Your task to perform on an android device: Go to location settings Image 0: 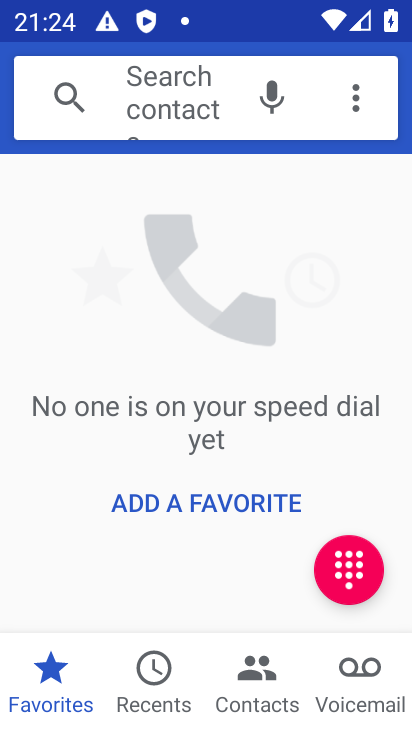
Step 0: drag from (206, 575) to (253, 233)
Your task to perform on an android device: Go to location settings Image 1: 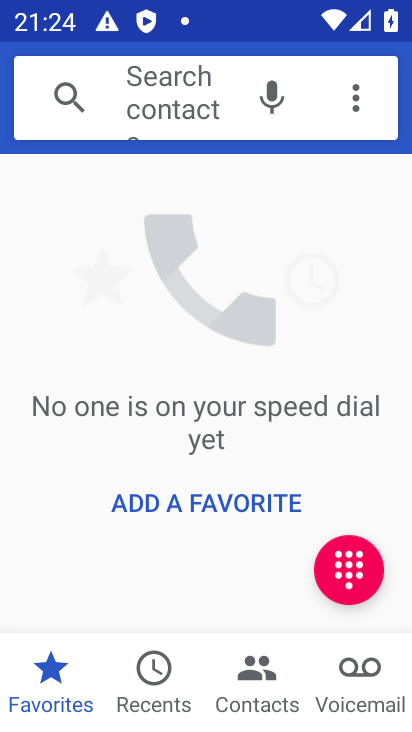
Step 1: press home button
Your task to perform on an android device: Go to location settings Image 2: 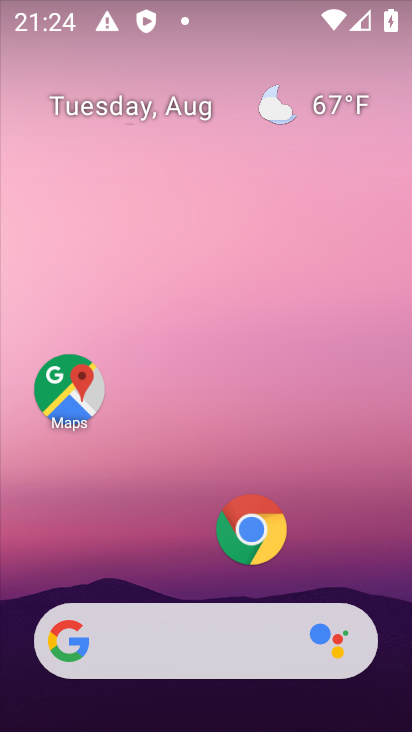
Step 2: drag from (189, 583) to (125, 16)
Your task to perform on an android device: Go to location settings Image 3: 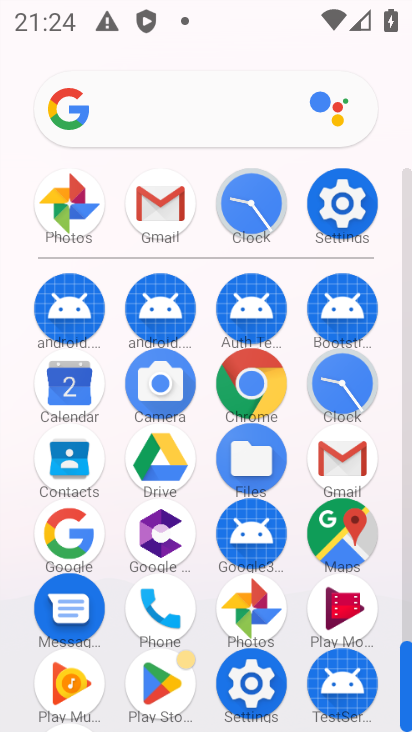
Step 3: click (333, 199)
Your task to perform on an android device: Go to location settings Image 4: 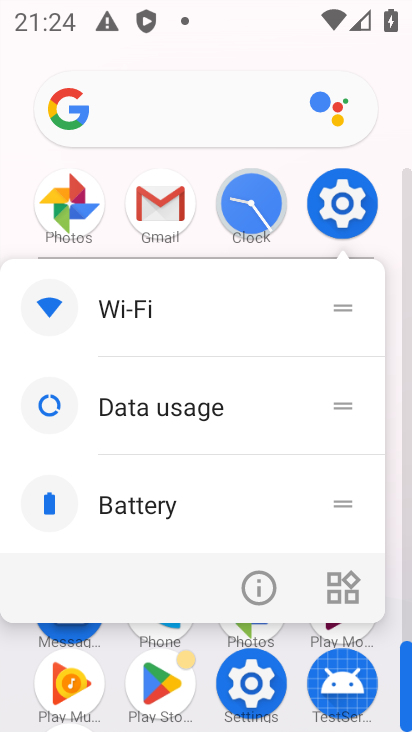
Step 4: click (253, 599)
Your task to perform on an android device: Go to location settings Image 5: 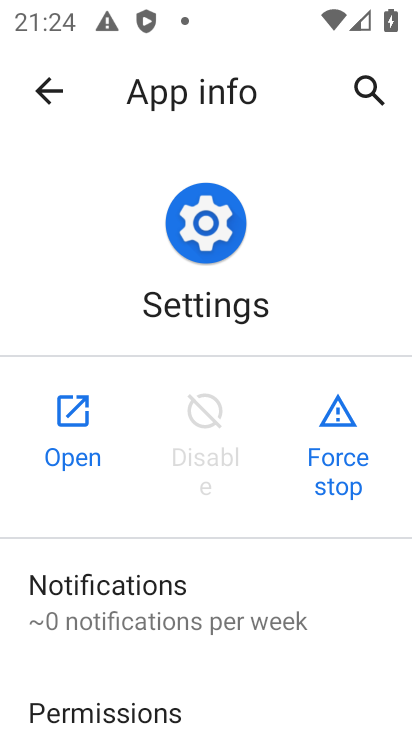
Step 5: click (67, 416)
Your task to perform on an android device: Go to location settings Image 6: 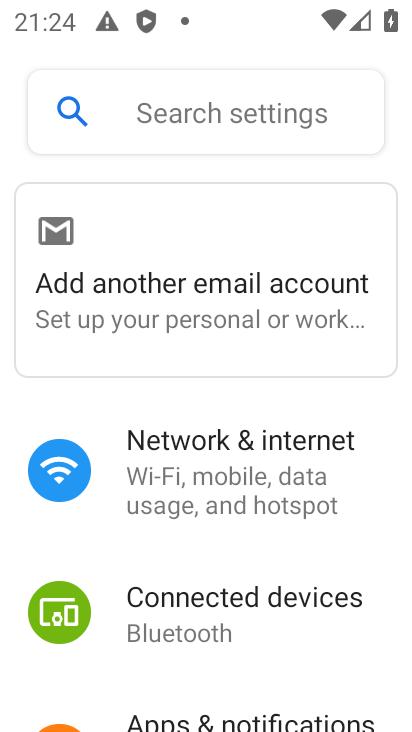
Step 6: drag from (222, 642) to (316, 15)
Your task to perform on an android device: Go to location settings Image 7: 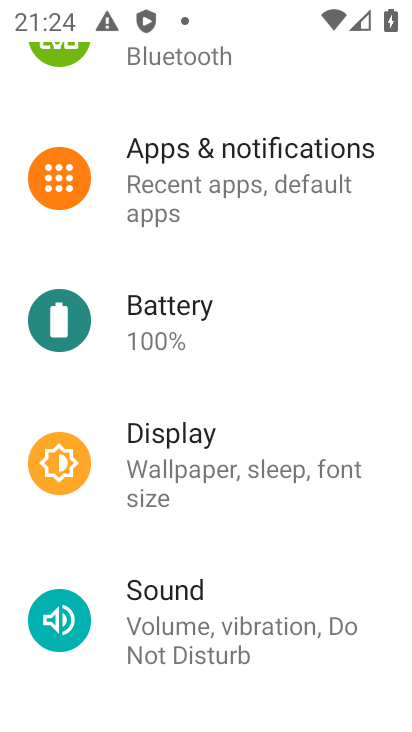
Step 7: drag from (223, 554) to (269, 99)
Your task to perform on an android device: Go to location settings Image 8: 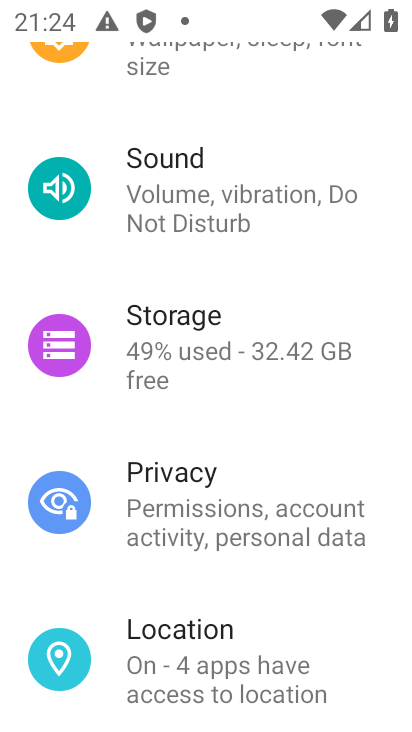
Step 8: click (193, 639)
Your task to perform on an android device: Go to location settings Image 9: 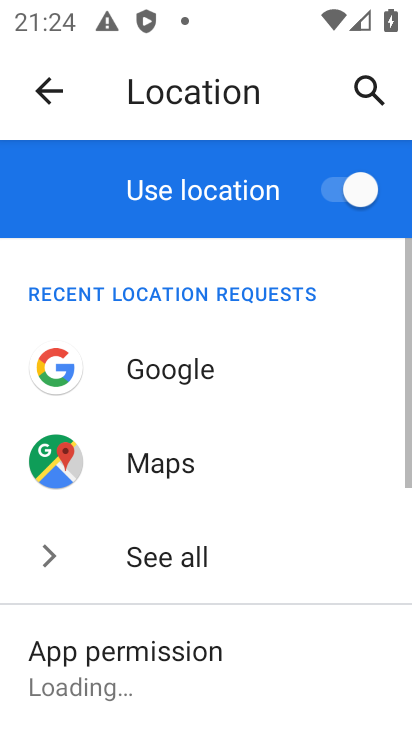
Step 9: task complete